Your task to perform on an android device: turn smart compose on in the gmail app Image 0: 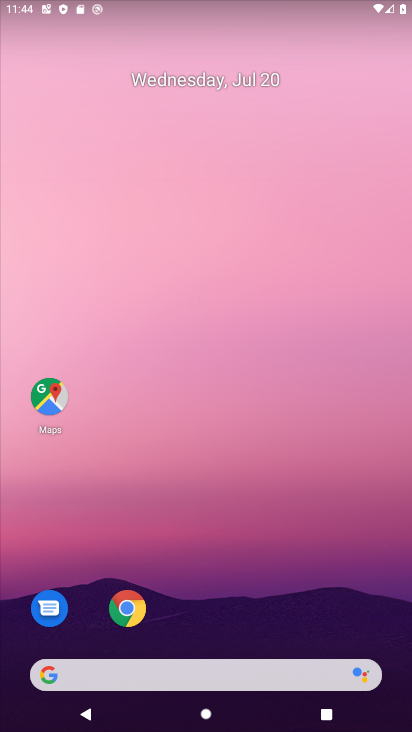
Step 0: drag from (314, 589) to (215, 3)
Your task to perform on an android device: turn smart compose on in the gmail app Image 1: 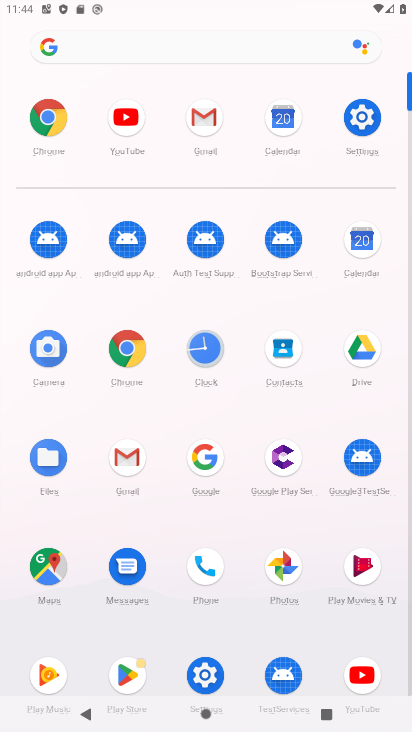
Step 1: click (125, 463)
Your task to perform on an android device: turn smart compose on in the gmail app Image 2: 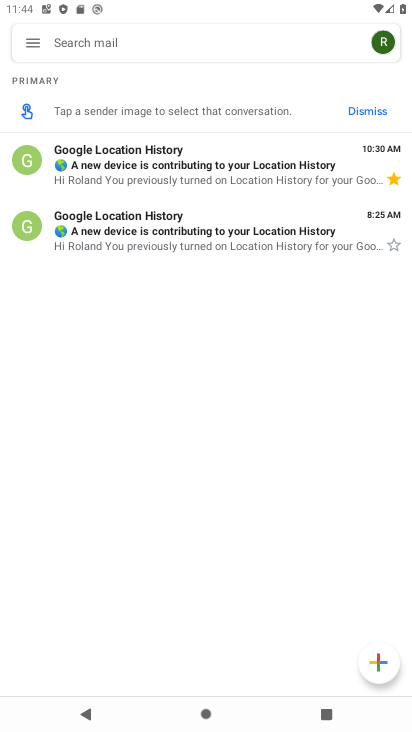
Step 2: click (25, 33)
Your task to perform on an android device: turn smart compose on in the gmail app Image 3: 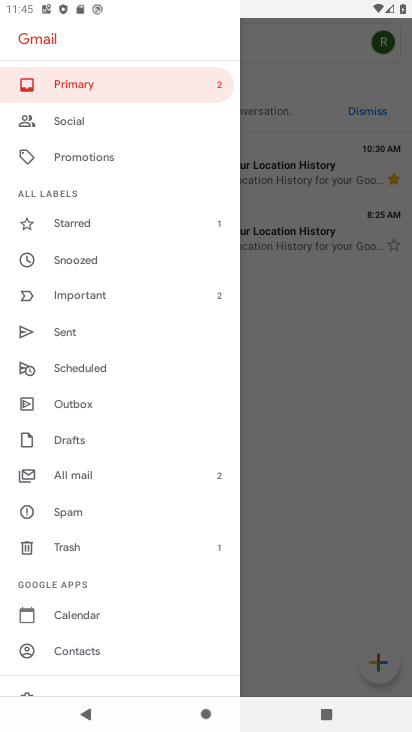
Step 3: drag from (77, 634) to (104, 20)
Your task to perform on an android device: turn smart compose on in the gmail app Image 4: 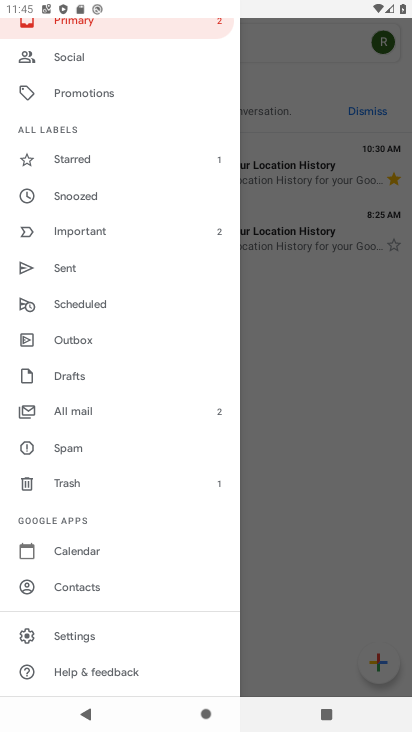
Step 4: click (83, 633)
Your task to perform on an android device: turn smart compose on in the gmail app Image 5: 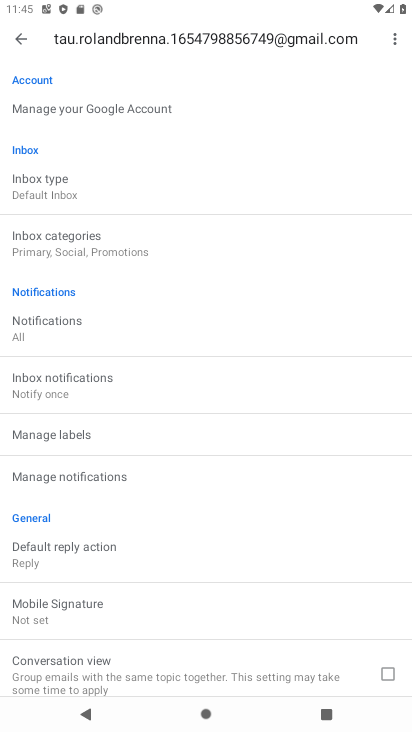
Step 5: task complete